Your task to perform on an android device: change notification settings in the gmail app Image 0: 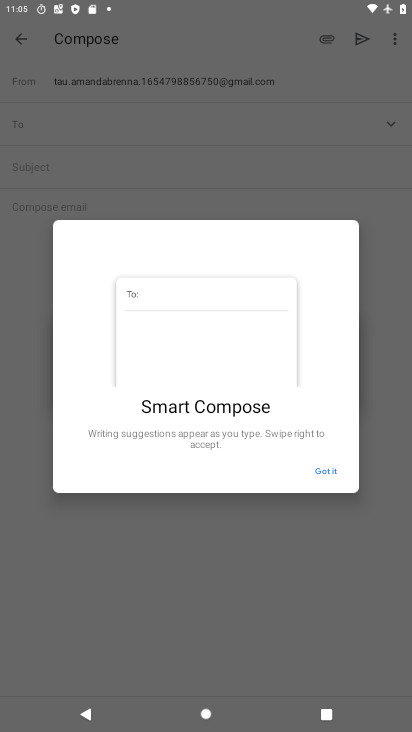
Step 0: press home button
Your task to perform on an android device: change notification settings in the gmail app Image 1: 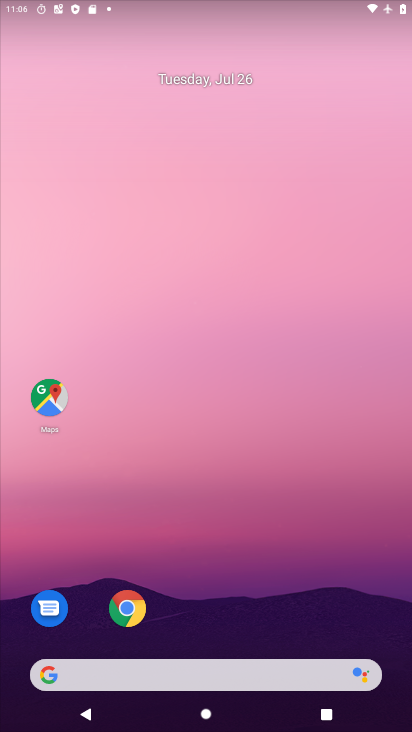
Step 1: drag from (254, 486) to (254, 161)
Your task to perform on an android device: change notification settings in the gmail app Image 2: 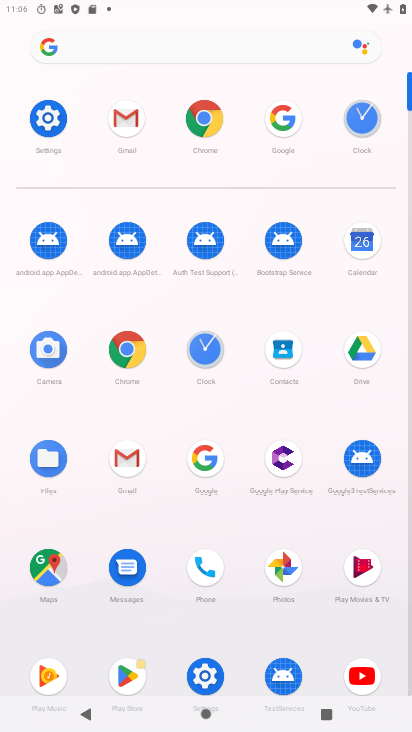
Step 2: click (116, 129)
Your task to perform on an android device: change notification settings in the gmail app Image 3: 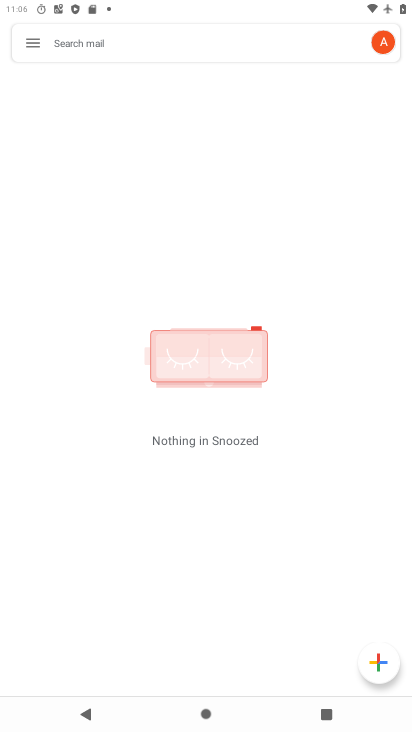
Step 3: click (30, 33)
Your task to perform on an android device: change notification settings in the gmail app Image 4: 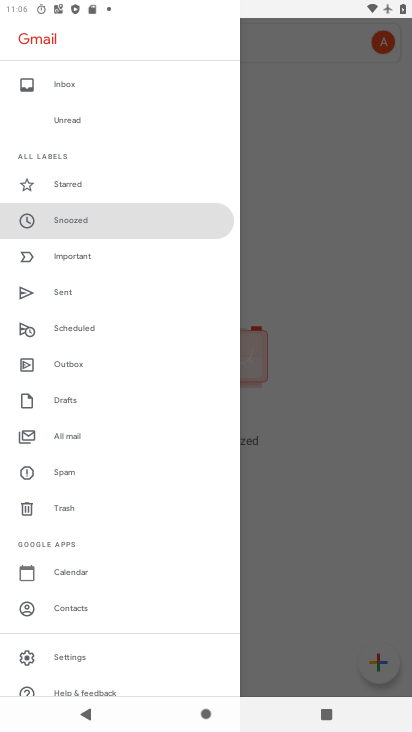
Step 4: click (98, 662)
Your task to perform on an android device: change notification settings in the gmail app Image 5: 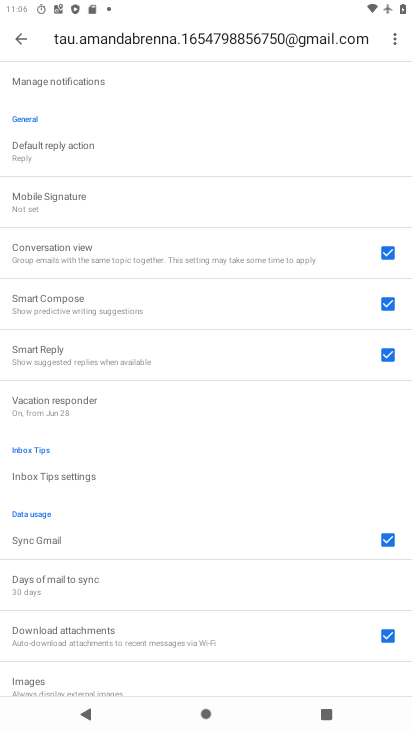
Step 5: drag from (89, 261) to (119, 491)
Your task to perform on an android device: change notification settings in the gmail app Image 6: 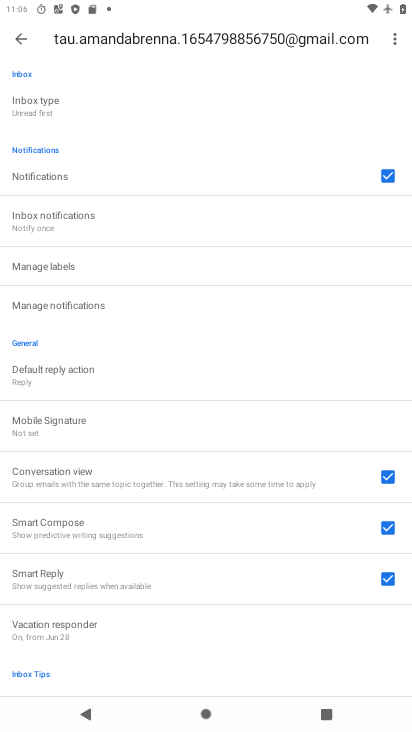
Step 6: click (78, 308)
Your task to perform on an android device: change notification settings in the gmail app Image 7: 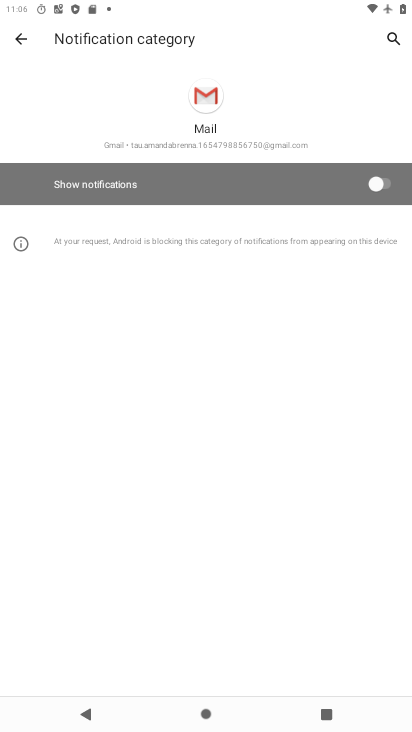
Step 7: click (380, 179)
Your task to perform on an android device: change notification settings in the gmail app Image 8: 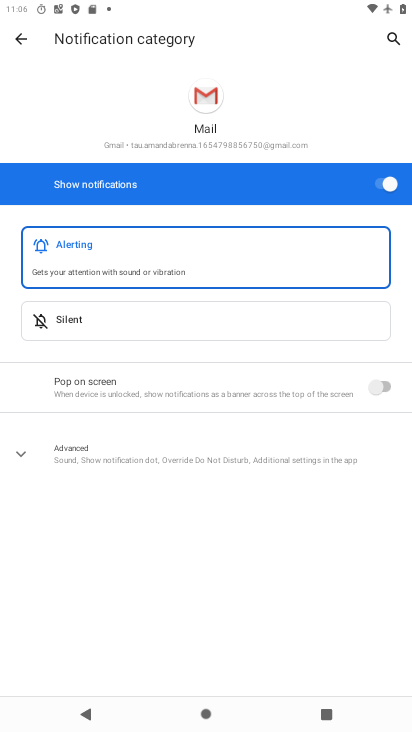
Step 8: task complete